Your task to perform on an android device: check battery use Image 0: 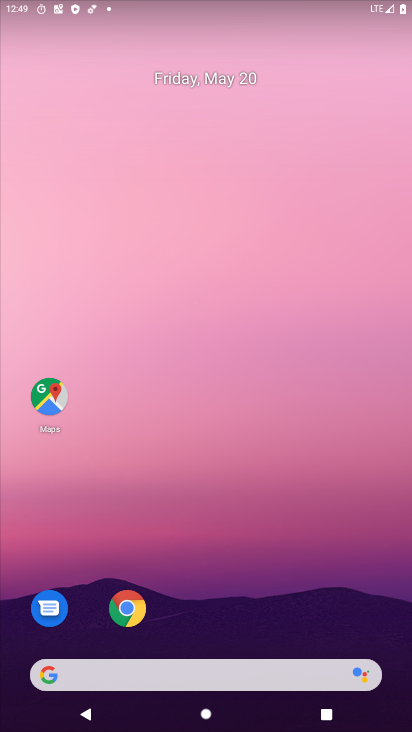
Step 0: drag from (346, 583) to (302, 133)
Your task to perform on an android device: check battery use Image 1: 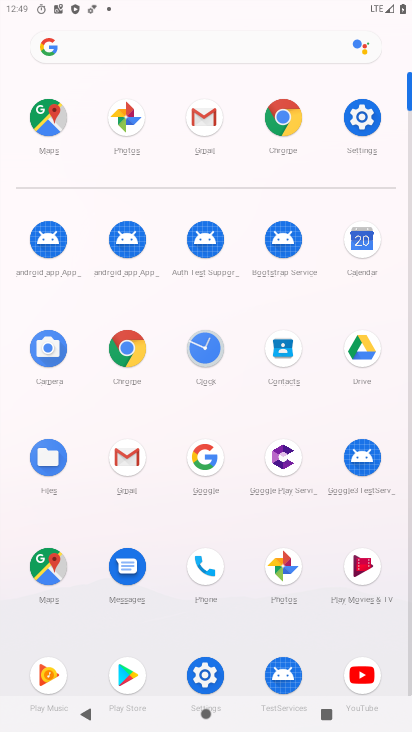
Step 1: click (372, 113)
Your task to perform on an android device: check battery use Image 2: 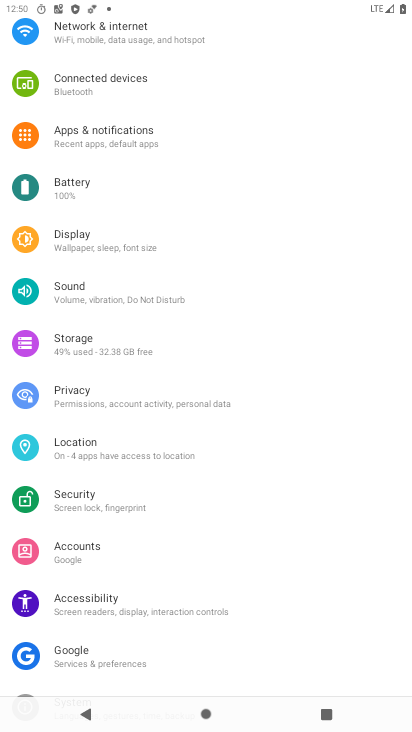
Step 2: click (104, 187)
Your task to perform on an android device: check battery use Image 3: 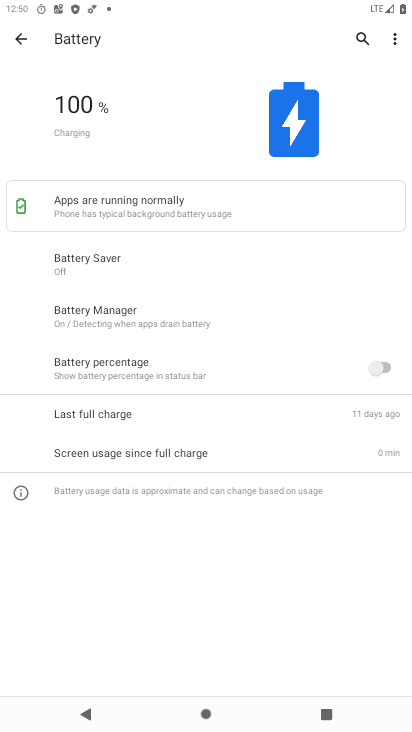
Step 3: task complete